Your task to perform on an android device: toggle data saver in the chrome app Image 0: 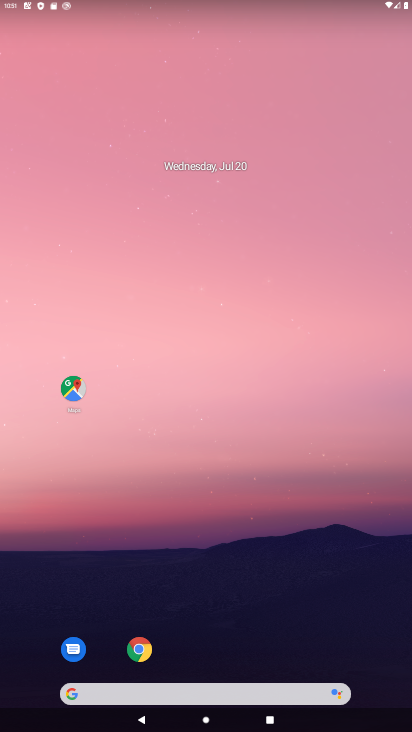
Step 0: task complete